Your task to perform on an android device: turn off translation in the chrome app Image 0: 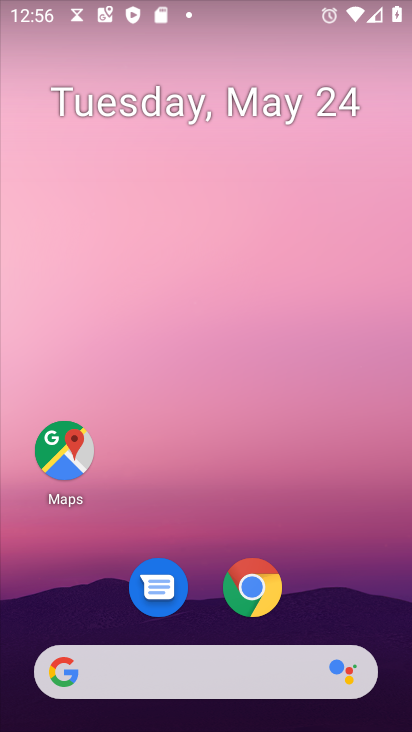
Step 0: click (258, 579)
Your task to perform on an android device: turn off translation in the chrome app Image 1: 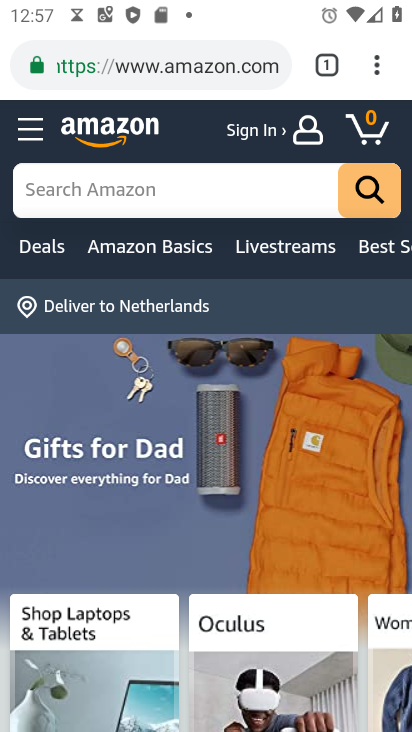
Step 1: drag from (374, 68) to (166, 629)
Your task to perform on an android device: turn off translation in the chrome app Image 2: 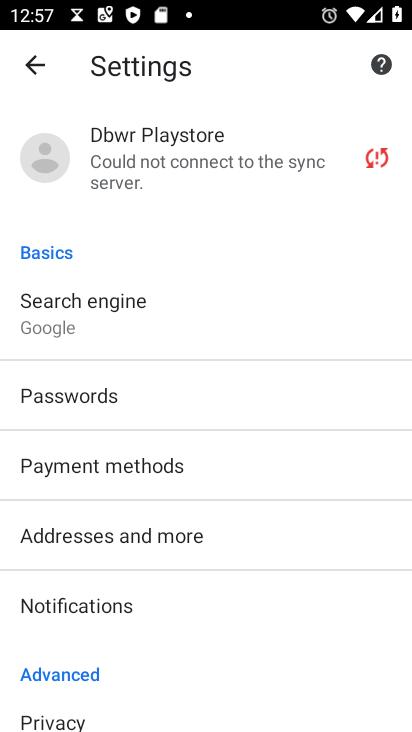
Step 2: drag from (161, 612) to (189, 273)
Your task to perform on an android device: turn off translation in the chrome app Image 3: 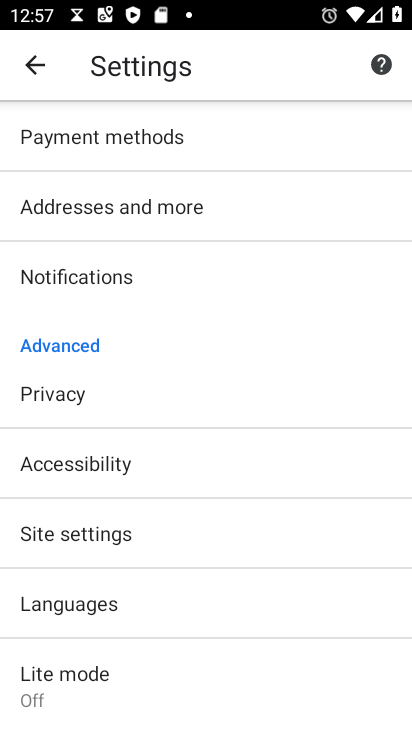
Step 3: click (129, 600)
Your task to perform on an android device: turn off translation in the chrome app Image 4: 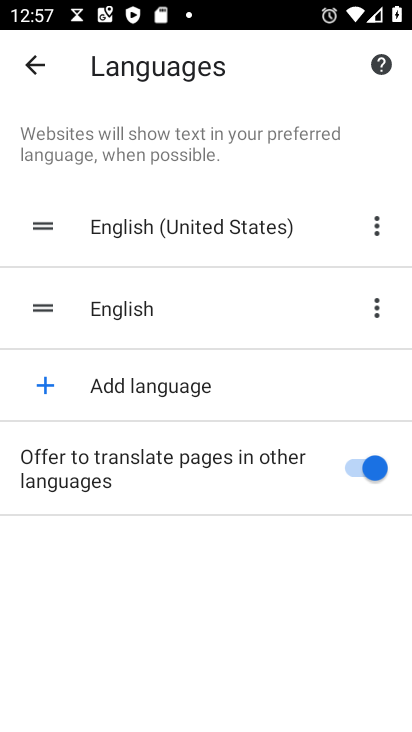
Step 4: click (358, 466)
Your task to perform on an android device: turn off translation in the chrome app Image 5: 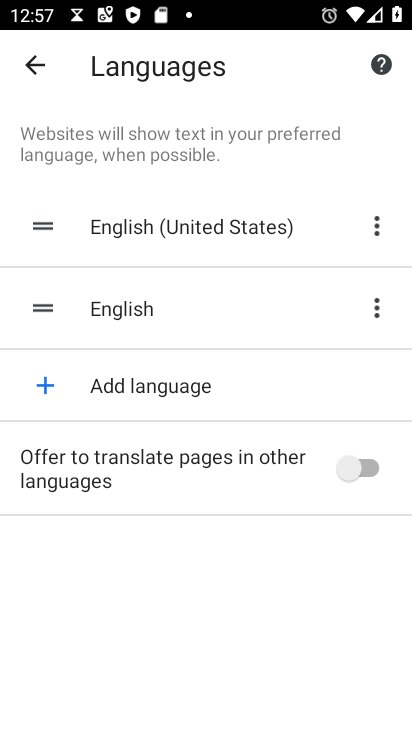
Step 5: task complete